Your task to perform on an android device: Search for panasonic triple a on amazon, select the first entry, add it to the cart, then select checkout. Image 0: 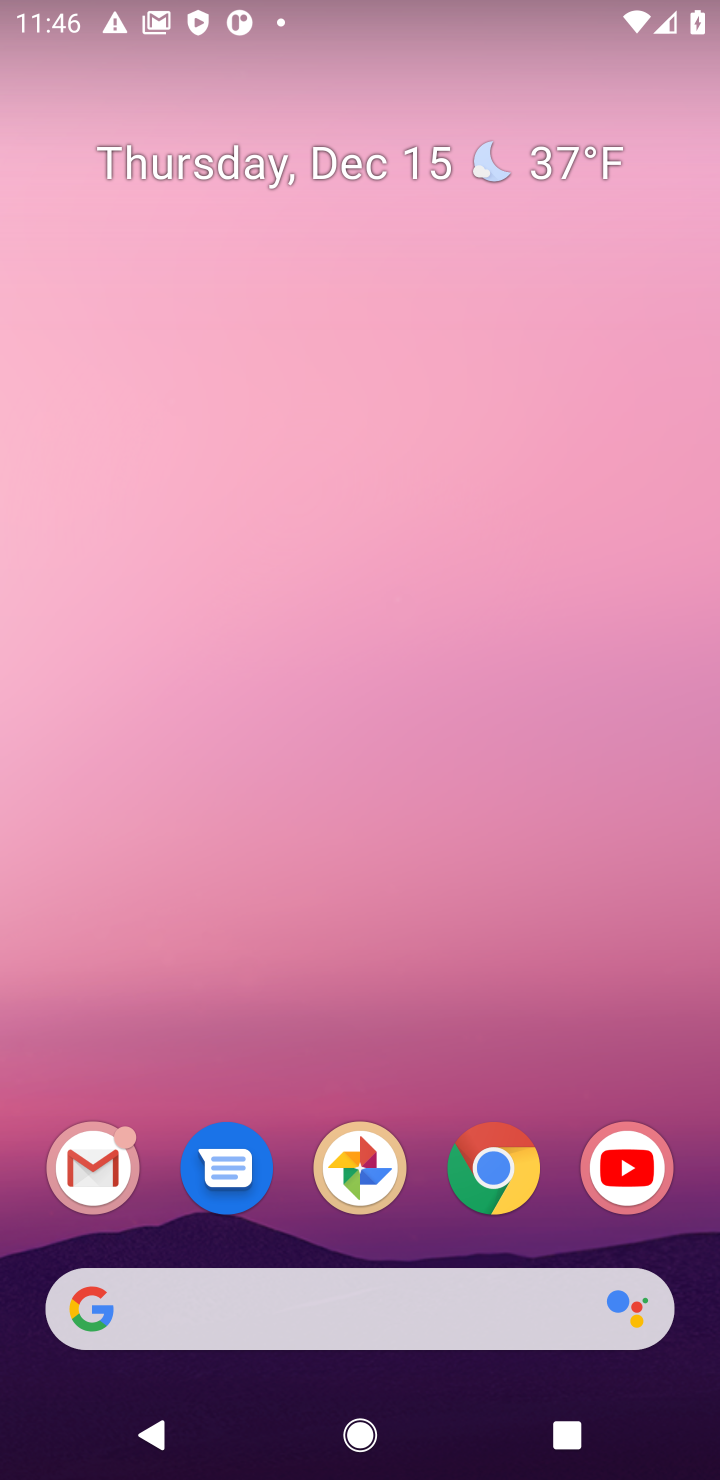
Step 0: click (490, 1183)
Your task to perform on an android device: Search for panasonic triple a on amazon, select the first entry, add it to the cart, then select checkout. Image 1: 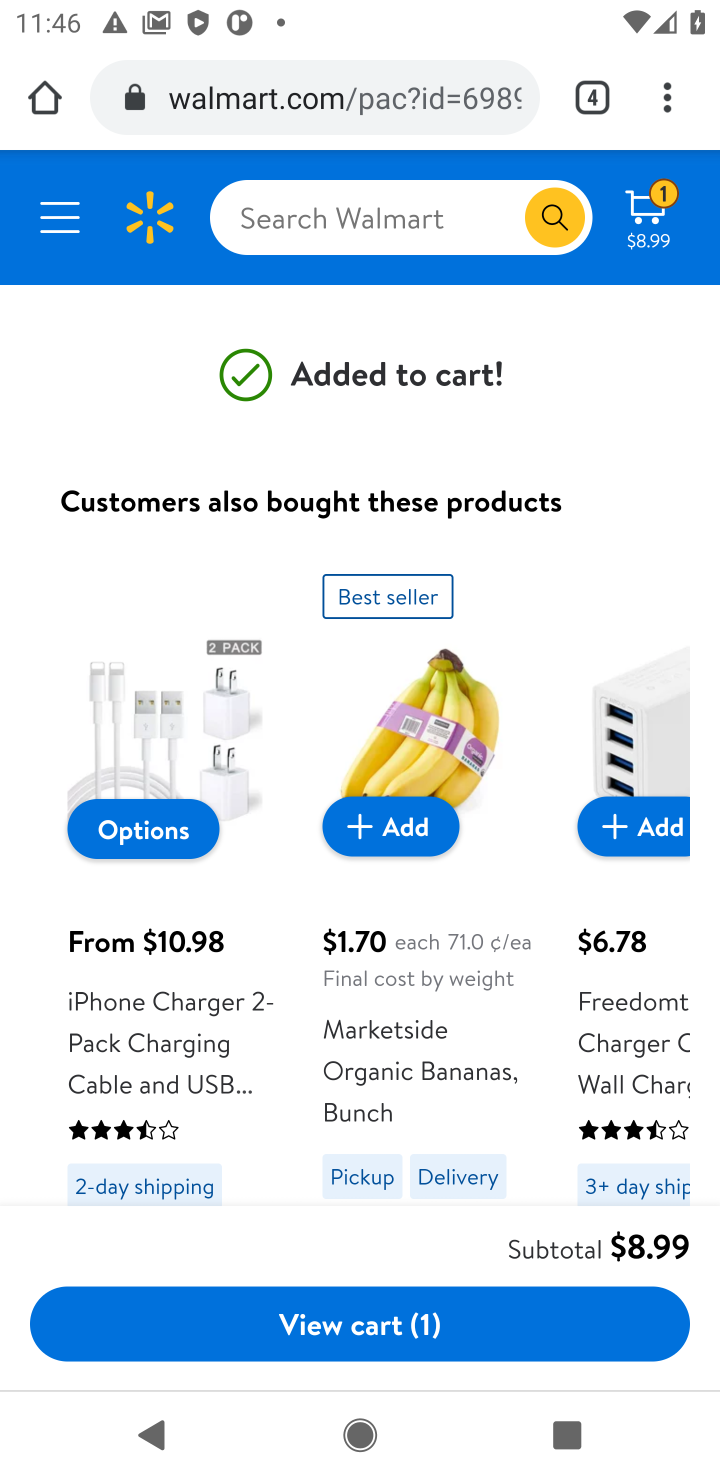
Step 1: click (412, 210)
Your task to perform on an android device: Search for panasonic triple a on amazon, select the first entry, add it to the cart, then select checkout. Image 2: 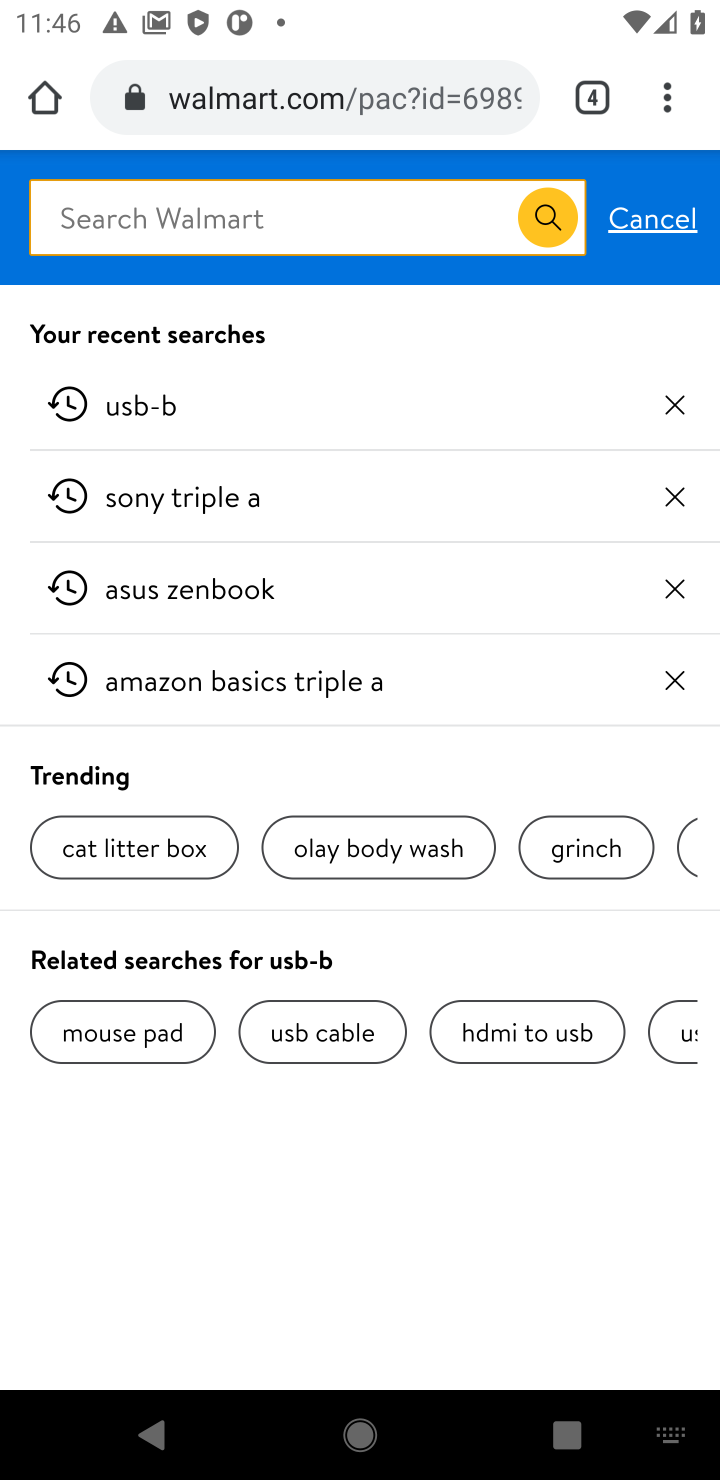
Step 2: click (327, 105)
Your task to perform on an android device: Search for panasonic triple a on amazon, select the first entry, add it to the cart, then select checkout. Image 3: 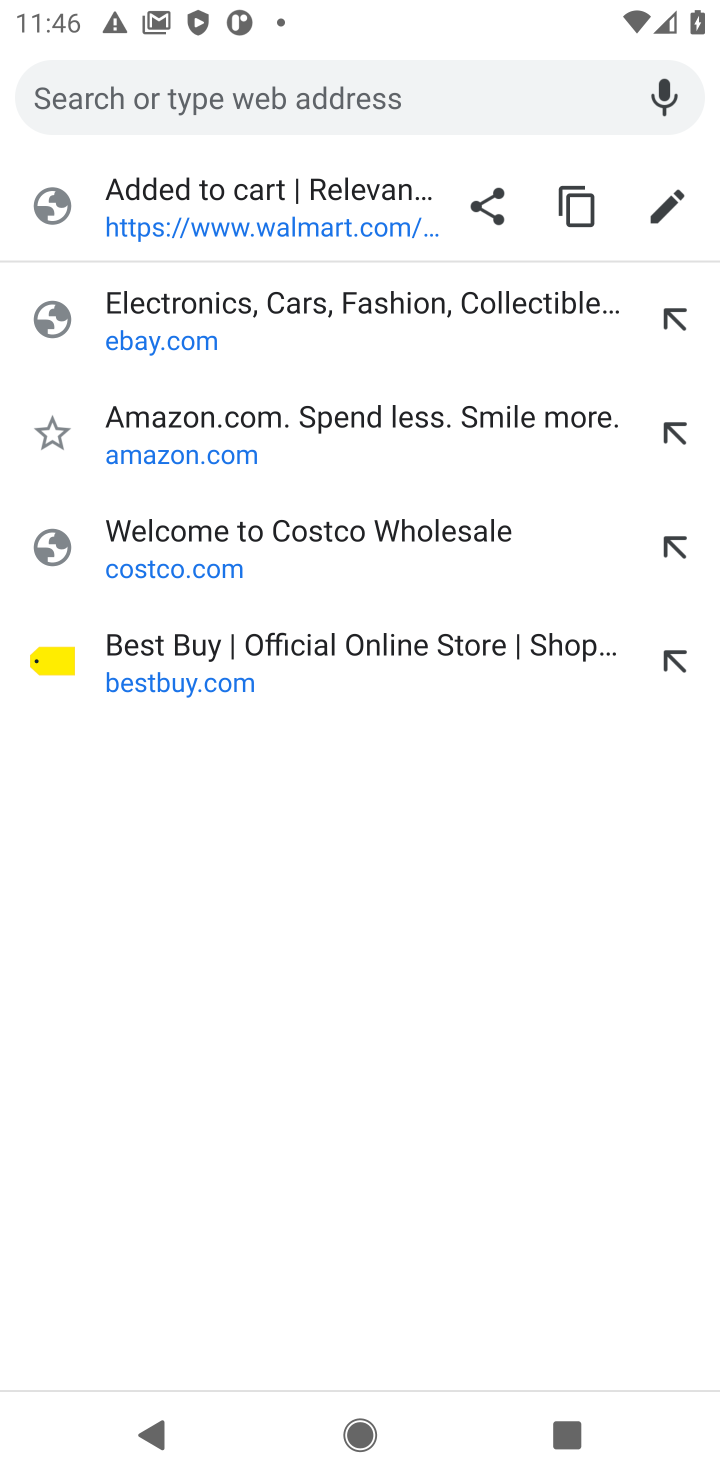
Step 3: type "amazon"
Your task to perform on an android device: Search for panasonic triple a on amazon, select the first entry, add it to the cart, then select checkout. Image 4: 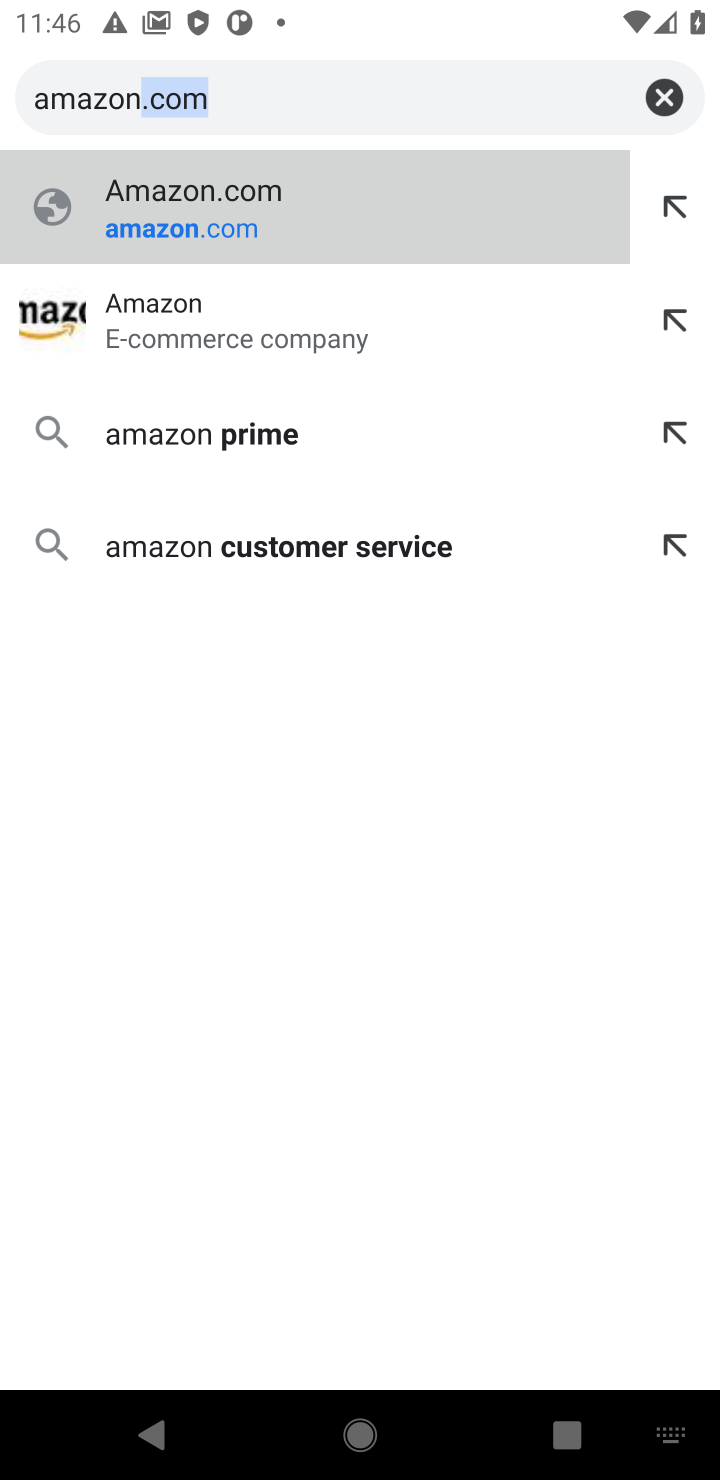
Step 4: click (232, 461)
Your task to perform on an android device: Search for panasonic triple a on amazon, select the first entry, add it to the cart, then select checkout. Image 5: 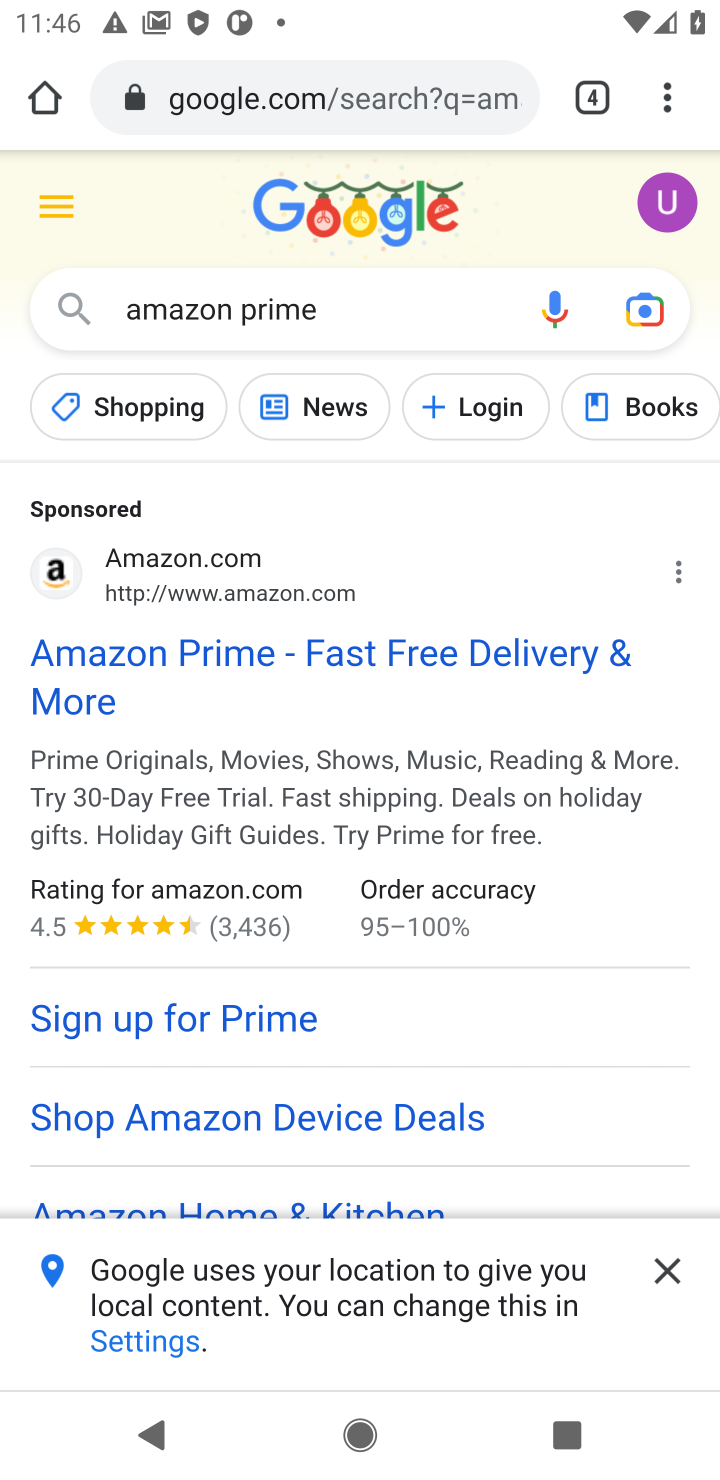
Step 5: click (194, 664)
Your task to perform on an android device: Search for panasonic triple a on amazon, select the first entry, add it to the cart, then select checkout. Image 6: 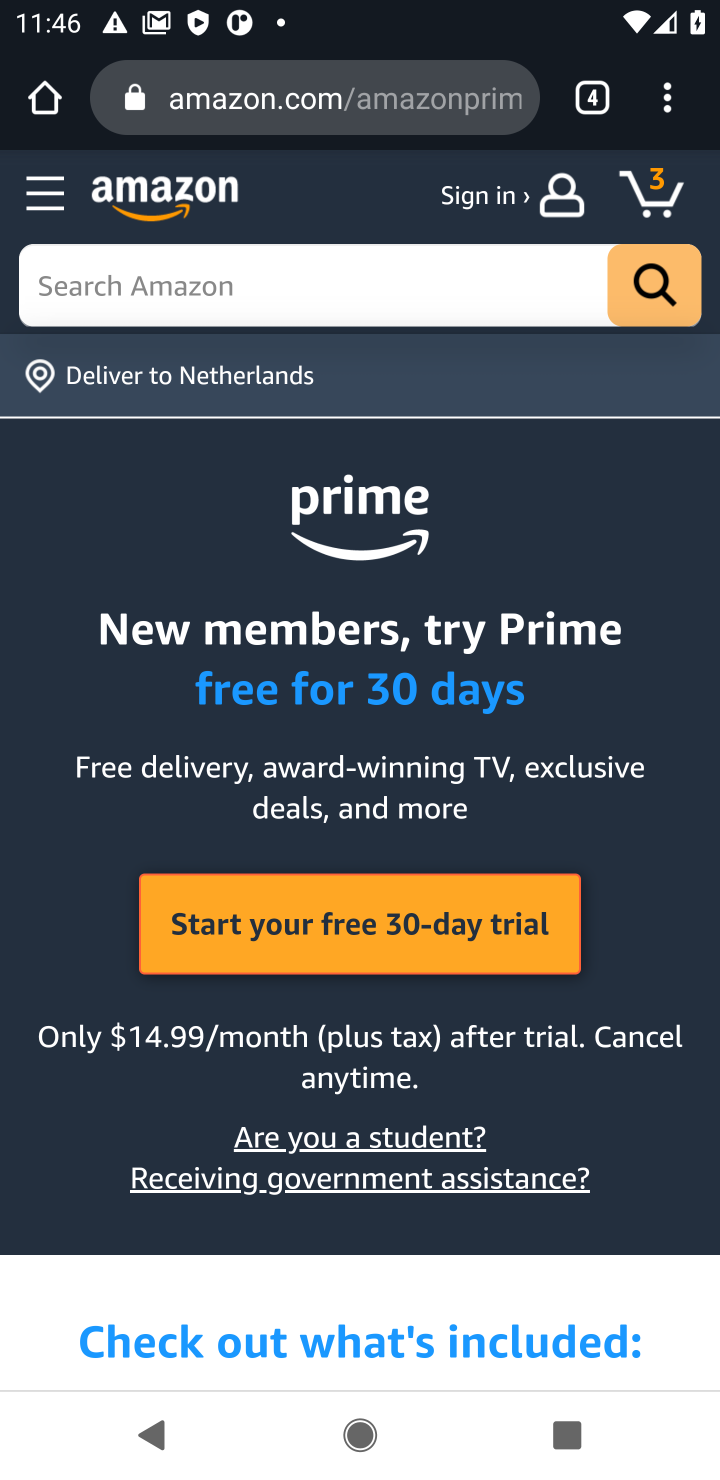
Step 6: click (331, 281)
Your task to perform on an android device: Search for panasonic triple a on amazon, select the first entry, add it to the cart, then select checkout. Image 7: 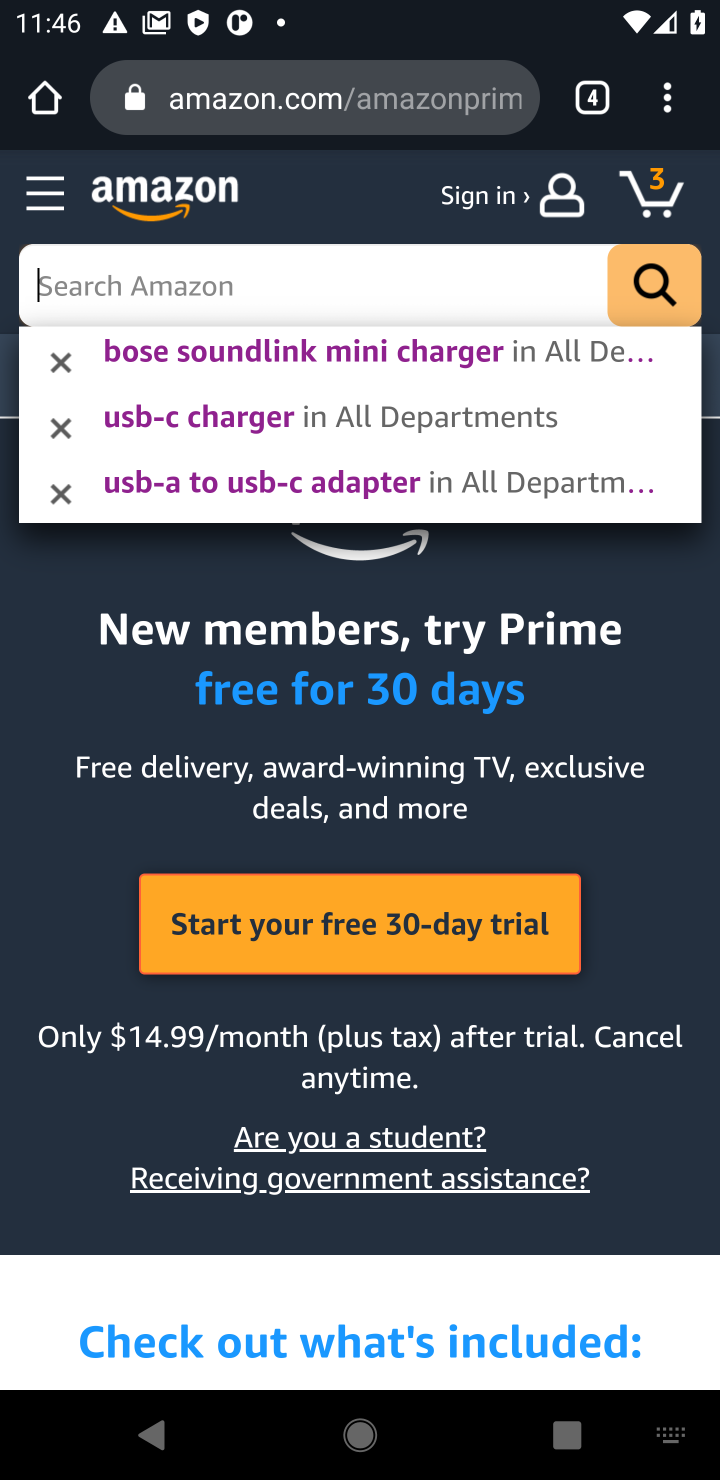
Step 7: type "panasonic triple a"
Your task to perform on an android device: Search for panasonic triple a on amazon, select the first entry, add it to the cart, then select checkout. Image 8: 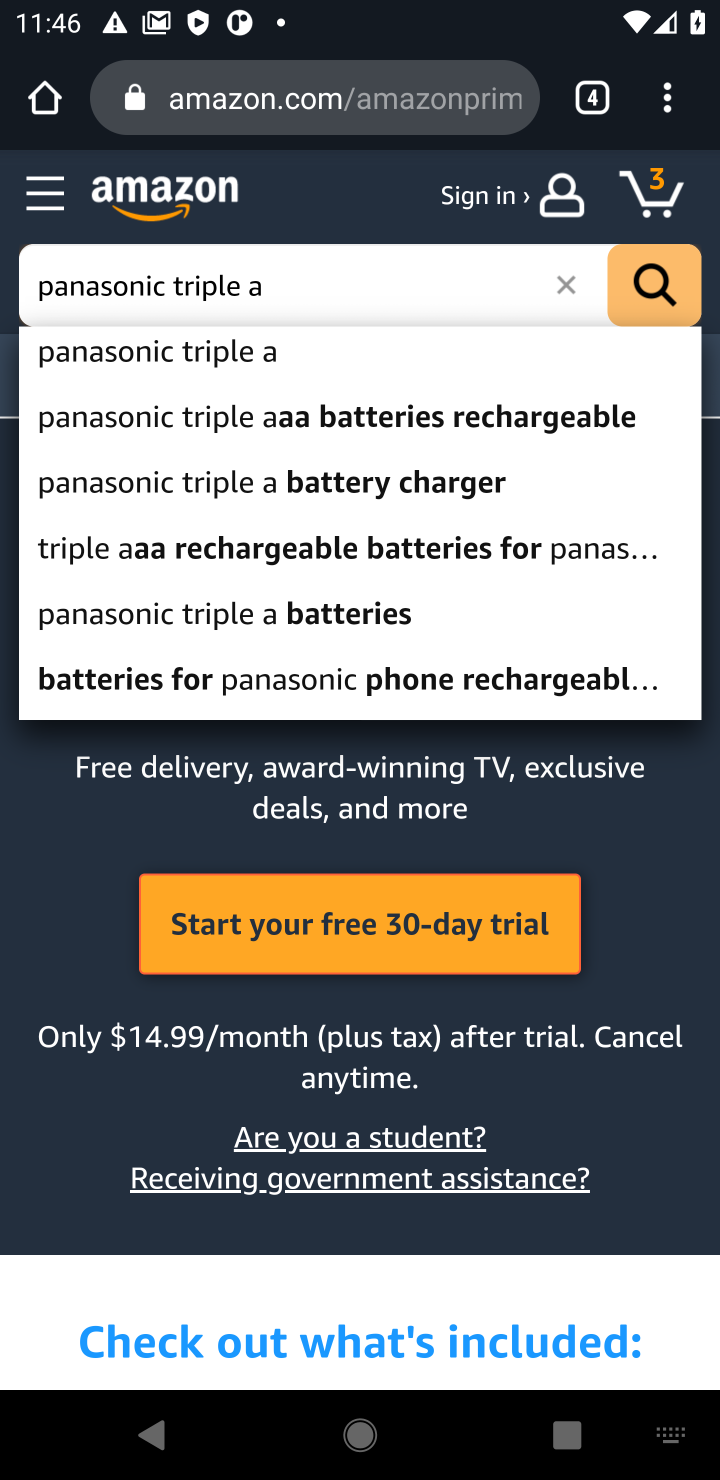
Step 8: click (181, 351)
Your task to perform on an android device: Search for panasonic triple a on amazon, select the first entry, add it to the cart, then select checkout. Image 9: 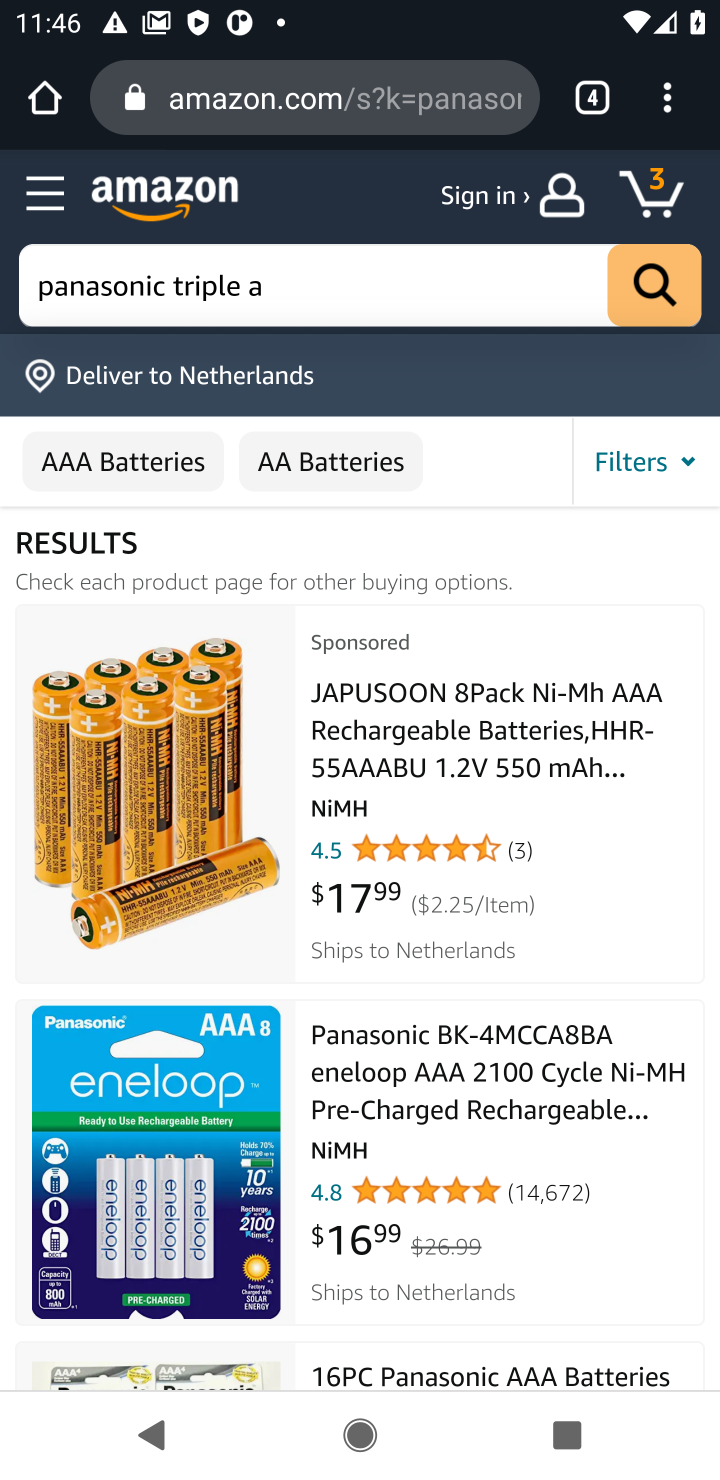
Step 9: click (529, 731)
Your task to perform on an android device: Search for panasonic triple a on amazon, select the first entry, add it to the cart, then select checkout. Image 10: 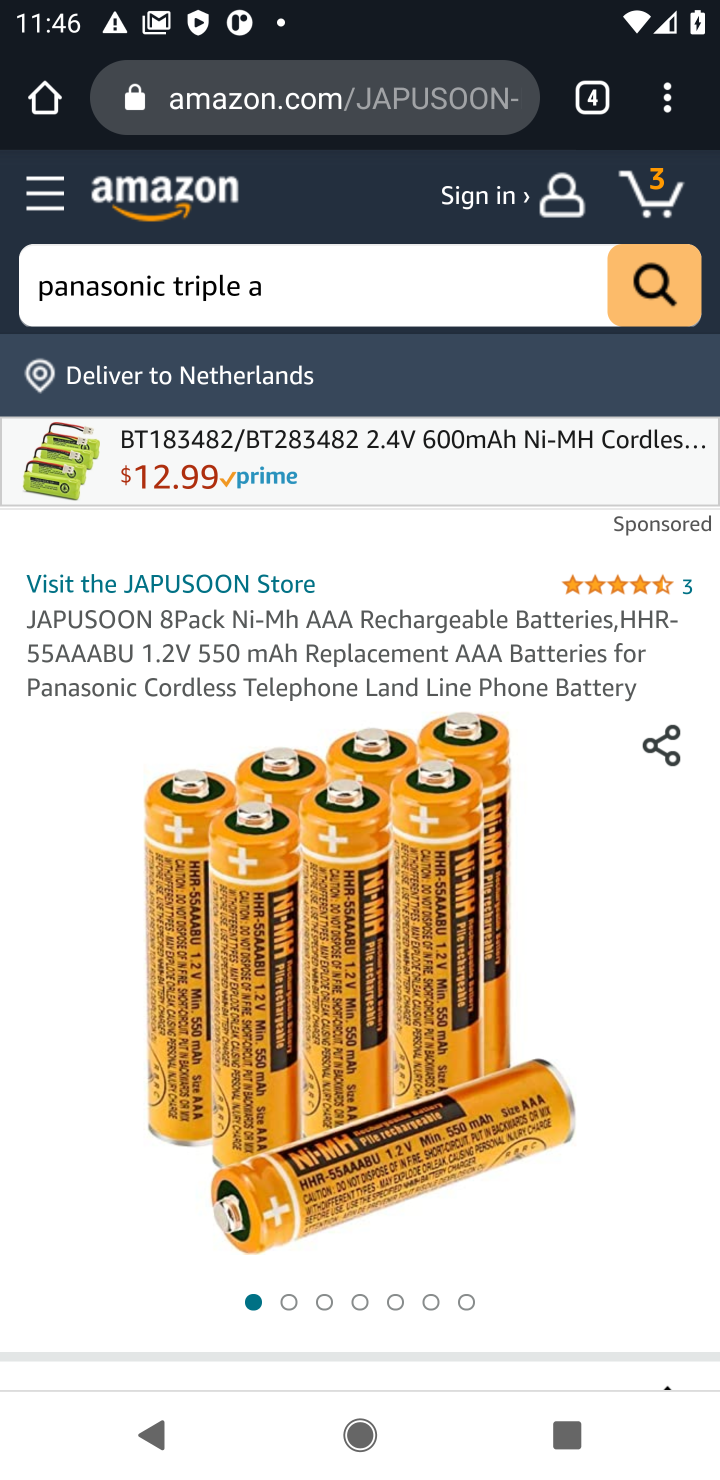
Step 10: drag from (478, 1252) to (474, 549)
Your task to perform on an android device: Search for panasonic triple a on amazon, select the first entry, add it to the cart, then select checkout. Image 11: 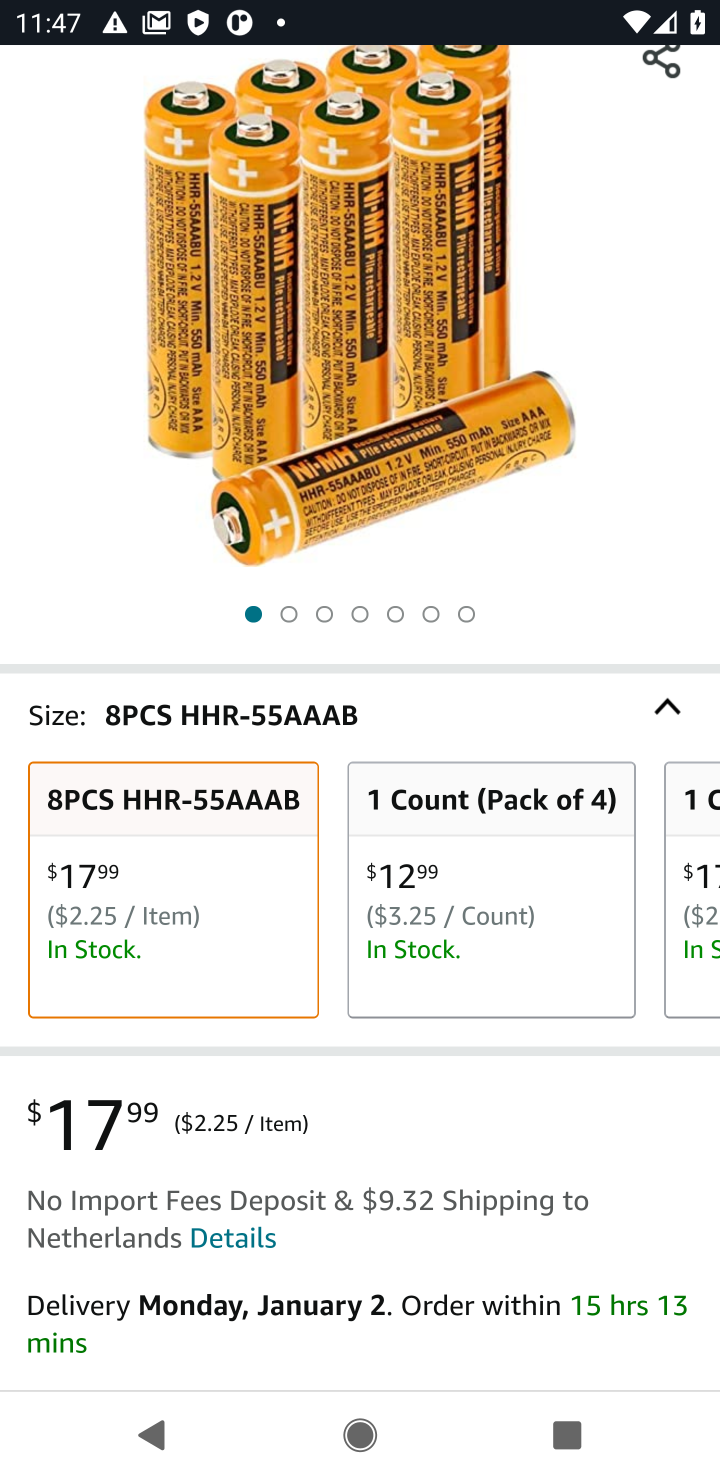
Step 11: drag from (505, 1219) to (476, 223)
Your task to perform on an android device: Search for panasonic triple a on amazon, select the first entry, add it to the cart, then select checkout. Image 12: 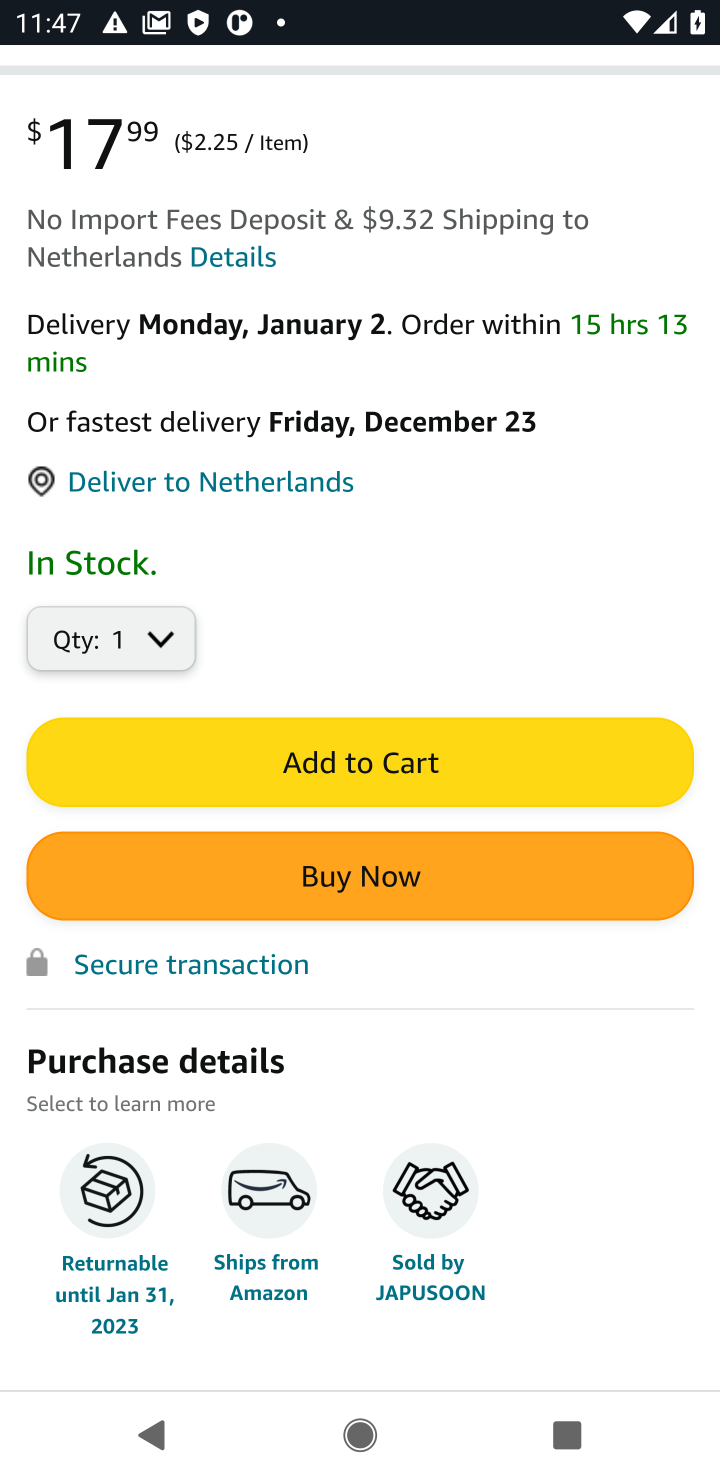
Step 12: click (365, 758)
Your task to perform on an android device: Search for panasonic triple a on amazon, select the first entry, add it to the cart, then select checkout. Image 13: 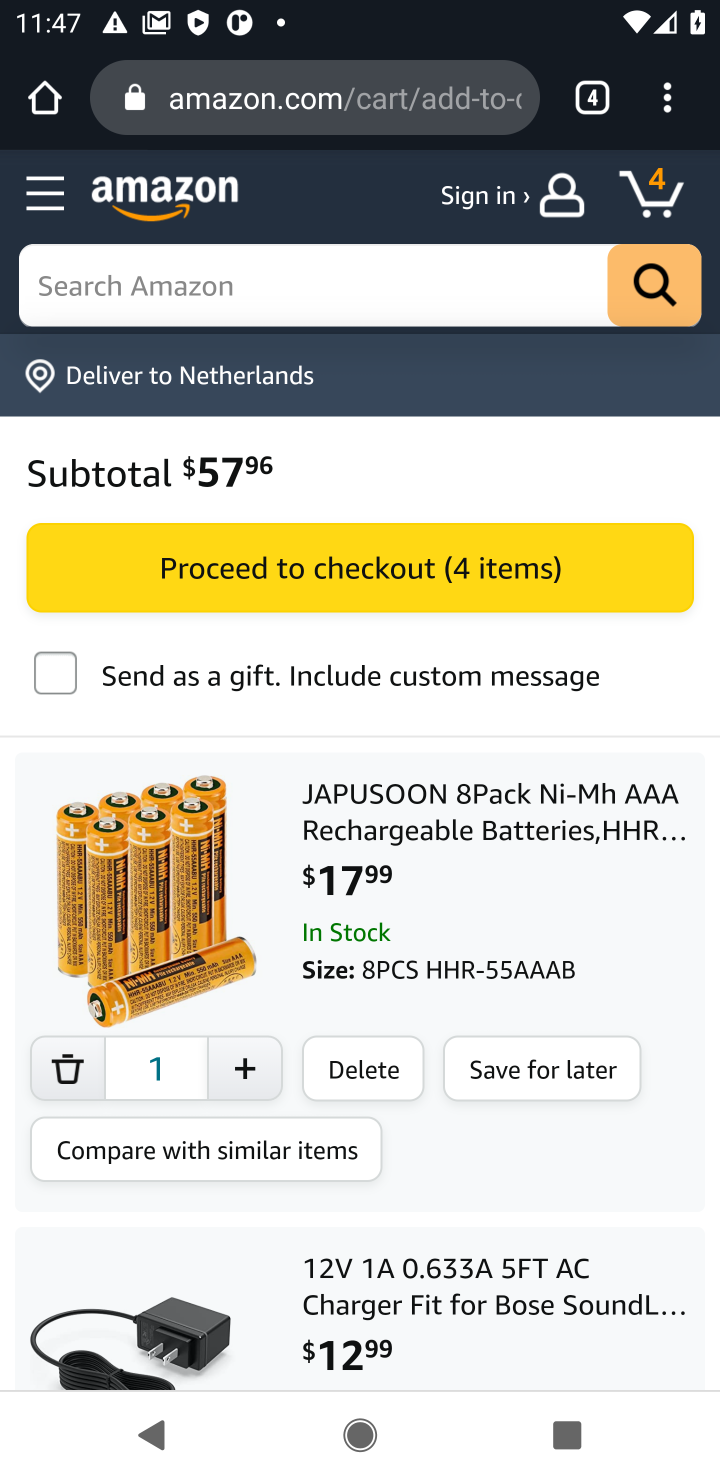
Step 13: click (351, 546)
Your task to perform on an android device: Search for panasonic triple a on amazon, select the first entry, add it to the cart, then select checkout. Image 14: 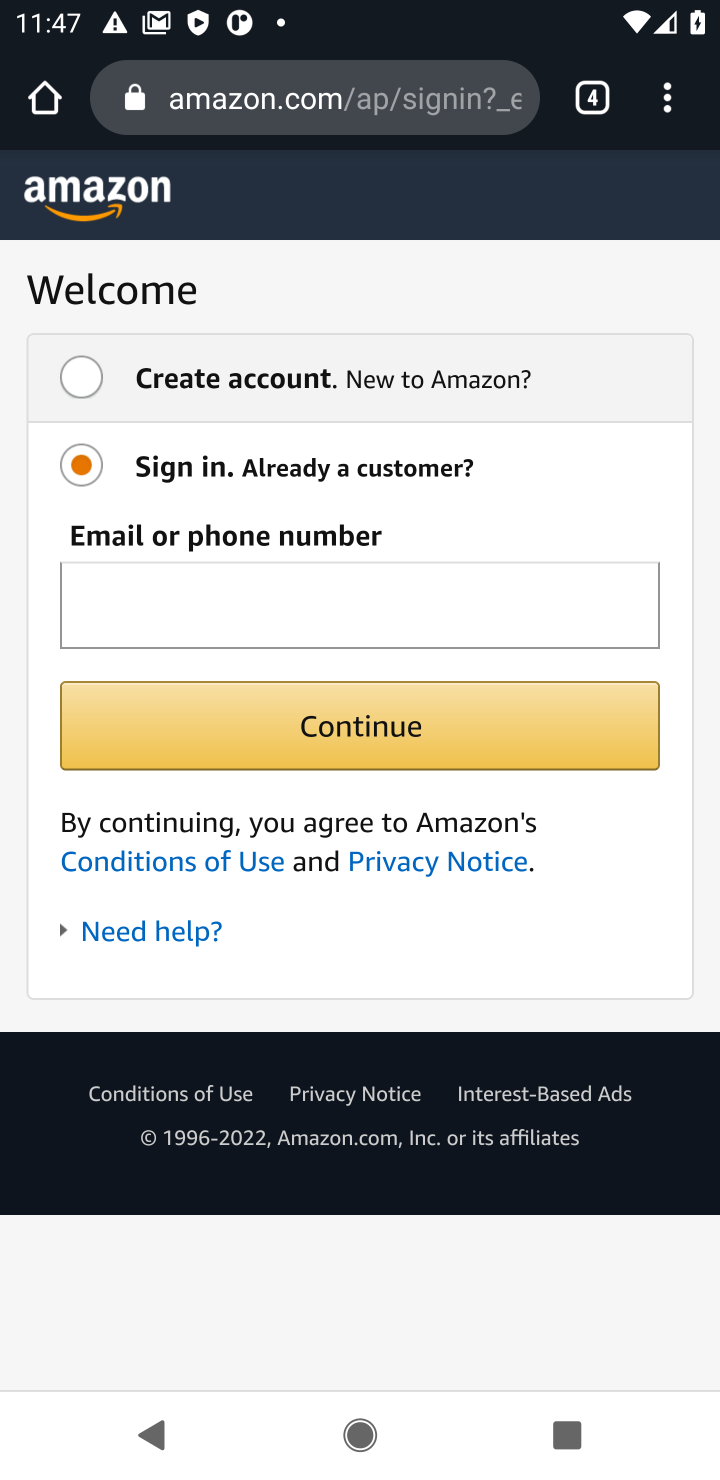
Step 14: task complete